Your task to perform on an android device: Is it going to rain tomorrow? Image 0: 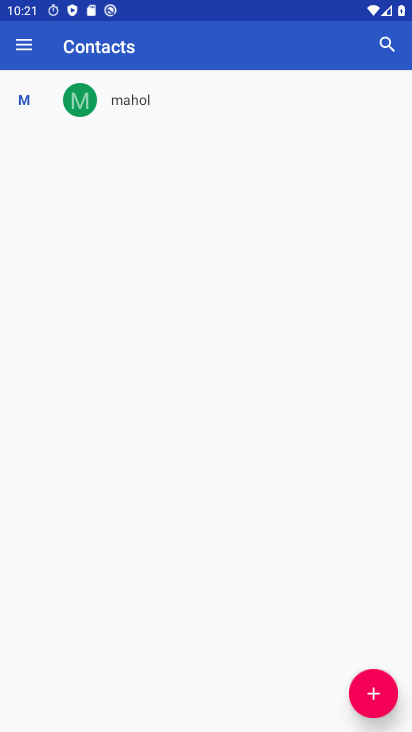
Step 0: press home button
Your task to perform on an android device: Is it going to rain tomorrow? Image 1: 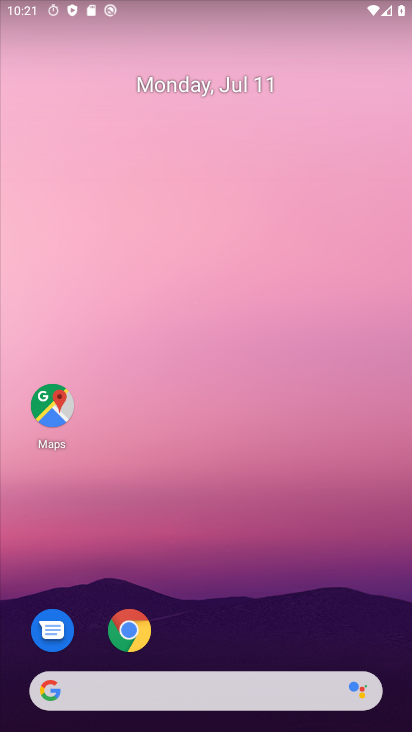
Step 1: drag from (229, 706) to (260, 13)
Your task to perform on an android device: Is it going to rain tomorrow? Image 2: 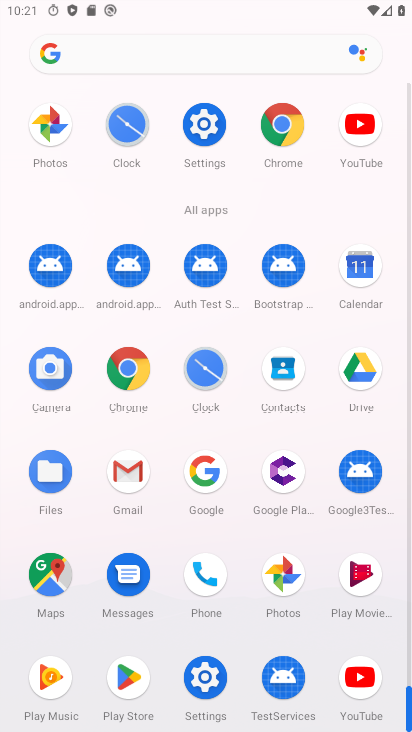
Step 2: click (375, 258)
Your task to perform on an android device: Is it going to rain tomorrow? Image 3: 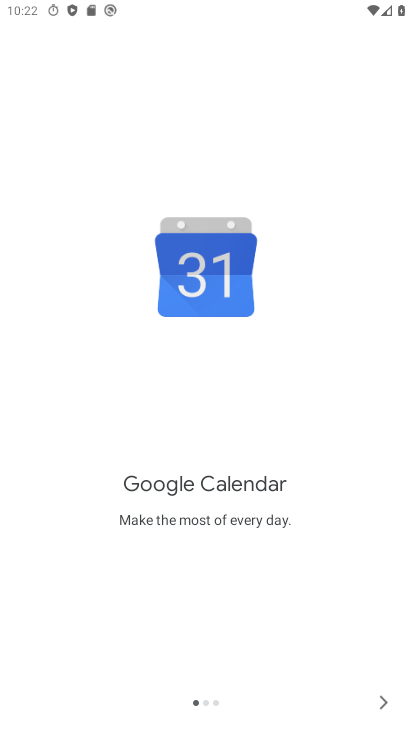
Step 3: click (385, 692)
Your task to perform on an android device: Is it going to rain tomorrow? Image 4: 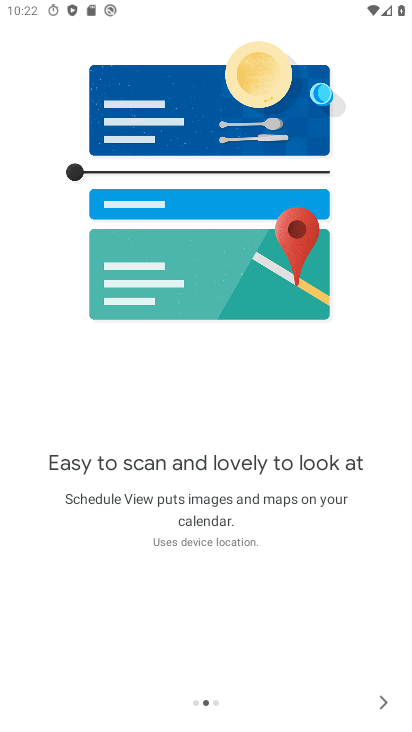
Step 4: click (382, 698)
Your task to perform on an android device: Is it going to rain tomorrow? Image 5: 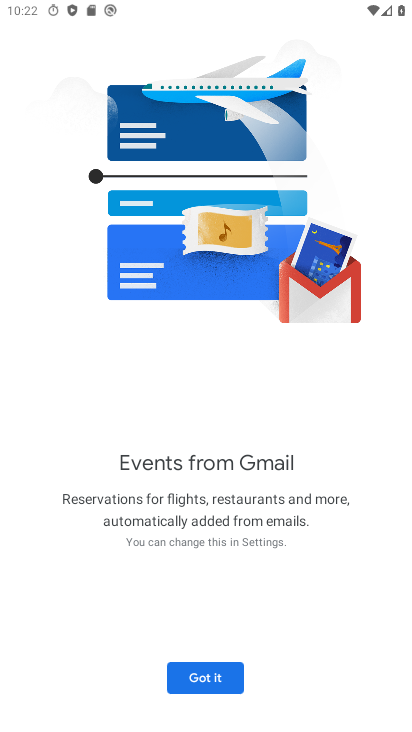
Step 5: click (222, 673)
Your task to perform on an android device: Is it going to rain tomorrow? Image 6: 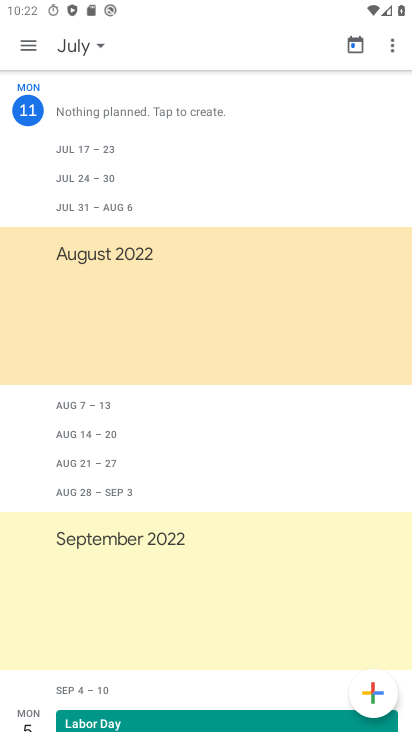
Step 6: click (94, 39)
Your task to perform on an android device: Is it going to rain tomorrow? Image 7: 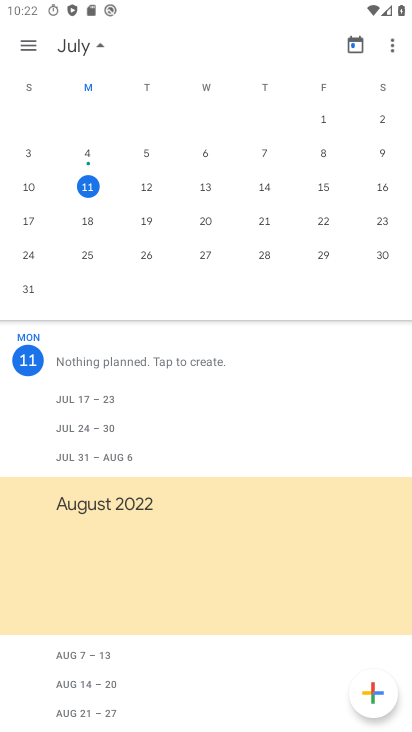
Step 7: click (151, 185)
Your task to perform on an android device: Is it going to rain tomorrow? Image 8: 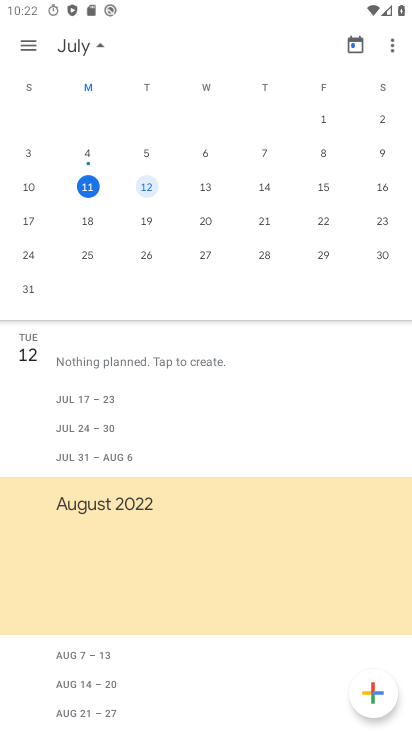
Step 8: click (208, 186)
Your task to perform on an android device: Is it going to rain tomorrow? Image 9: 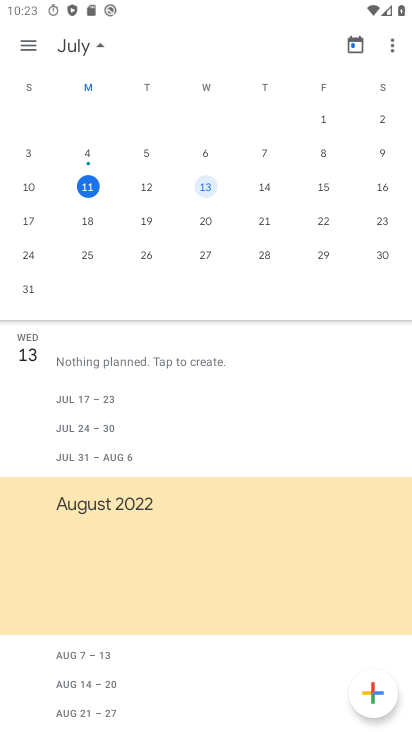
Step 9: task complete